Your task to perform on an android device: check google app version Image 0: 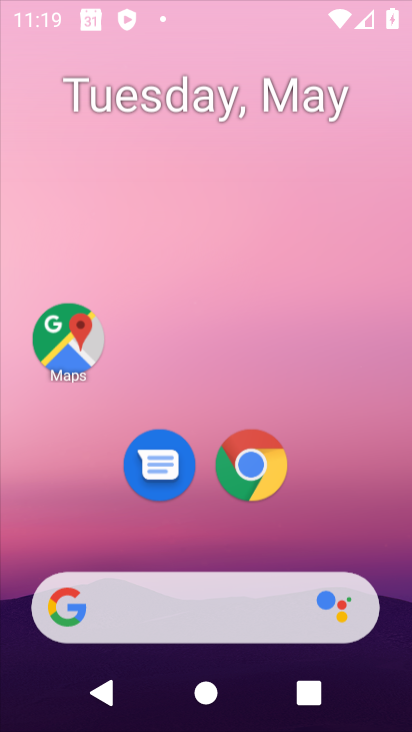
Step 0: click (256, 452)
Your task to perform on an android device: check google app version Image 1: 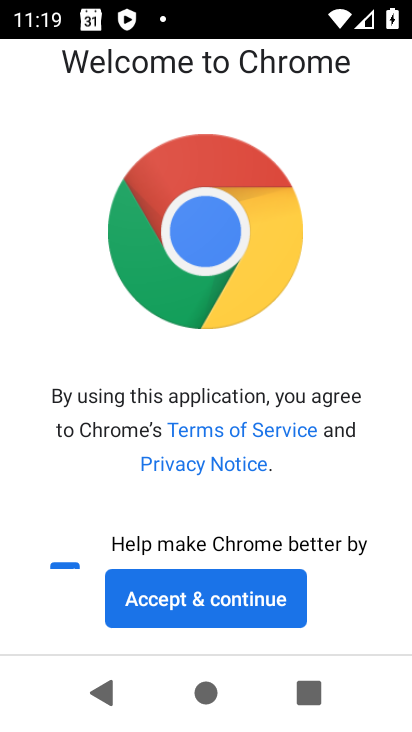
Step 1: click (212, 604)
Your task to perform on an android device: check google app version Image 2: 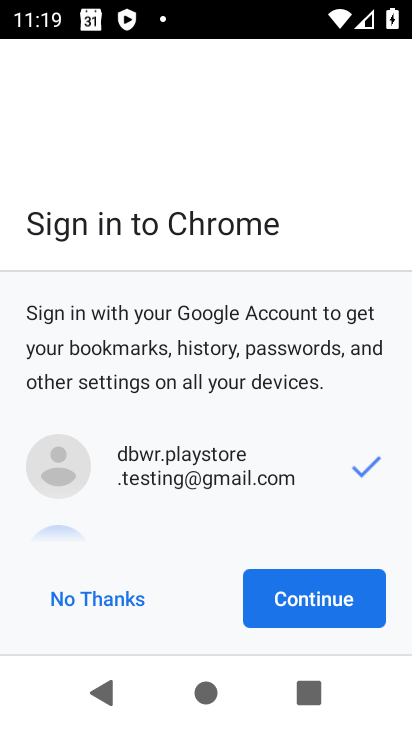
Step 2: click (339, 599)
Your task to perform on an android device: check google app version Image 3: 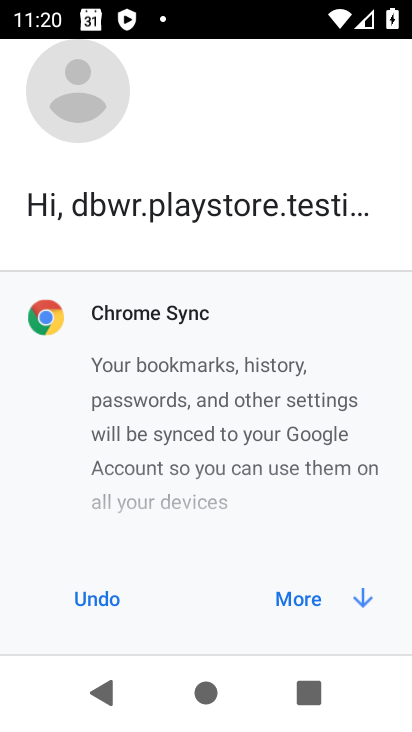
Step 3: press back button
Your task to perform on an android device: check google app version Image 4: 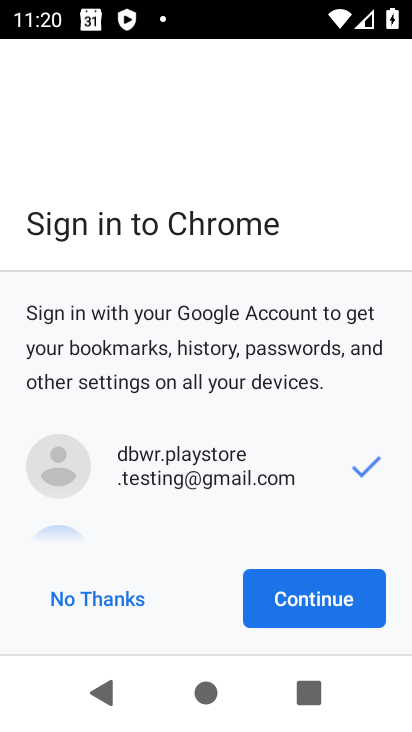
Step 4: press back button
Your task to perform on an android device: check google app version Image 5: 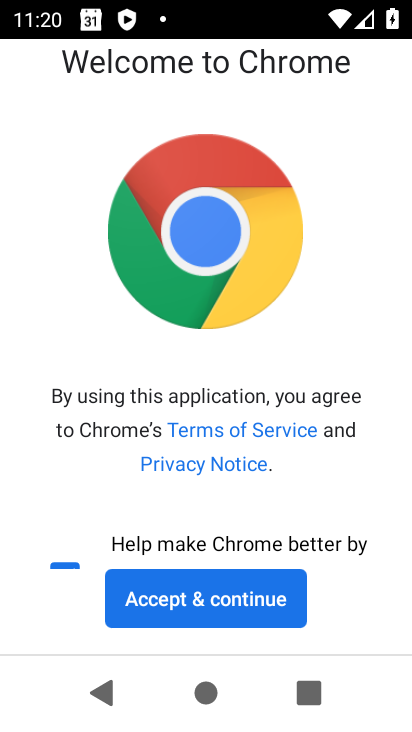
Step 5: press back button
Your task to perform on an android device: check google app version Image 6: 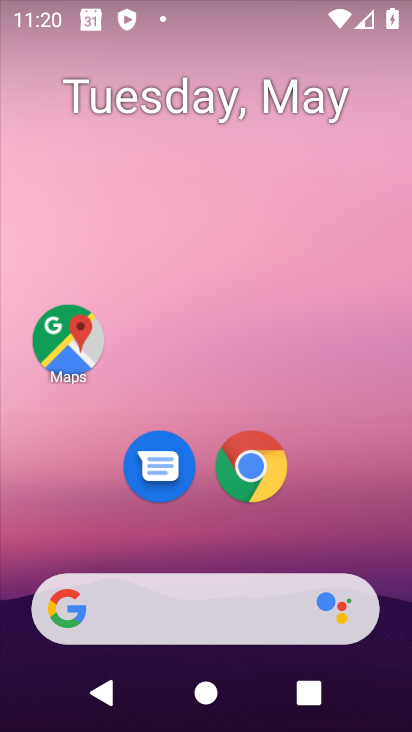
Step 6: drag from (219, 590) to (345, 7)
Your task to perform on an android device: check google app version Image 7: 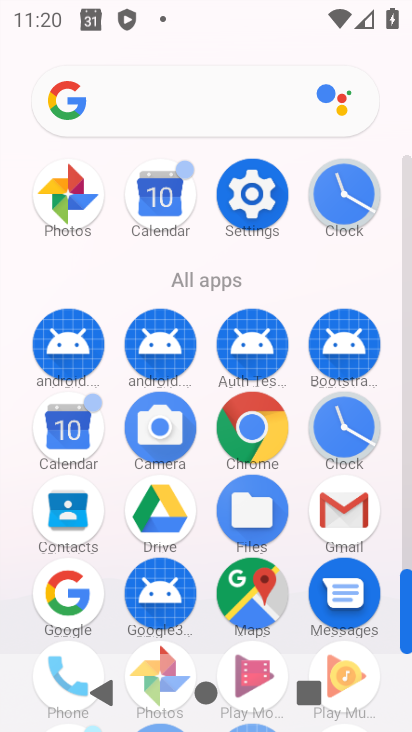
Step 7: click (63, 592)
Your task to perform on an android device: check google app version Image 8: 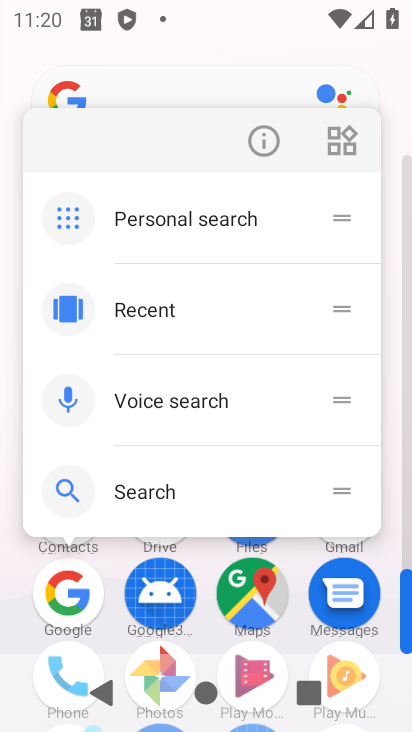
Step 8: click (261, 145)
Your task to perform on an android device: check google app version Image 9: 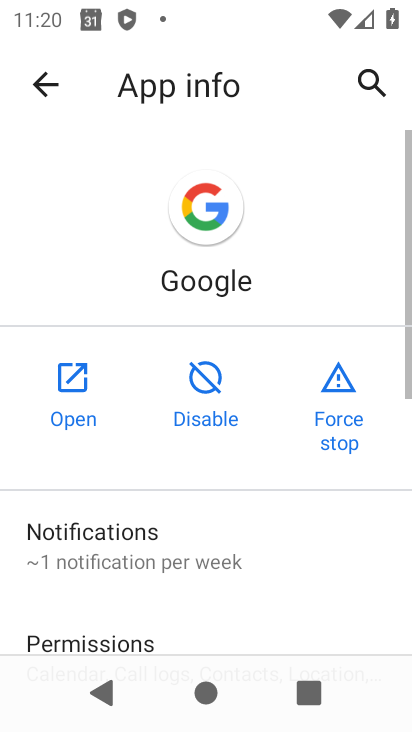
Step 9: drag from (153, 634) to (332, 68)
Your task to perform on an android device: check google app version Image 10: 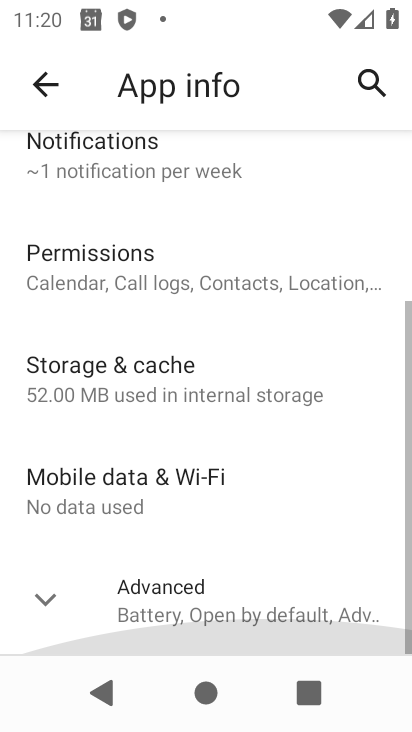
Step 10: drag from (221, 608) to (321, 108)
Your task to perform on an android device: check google app version Image 11: 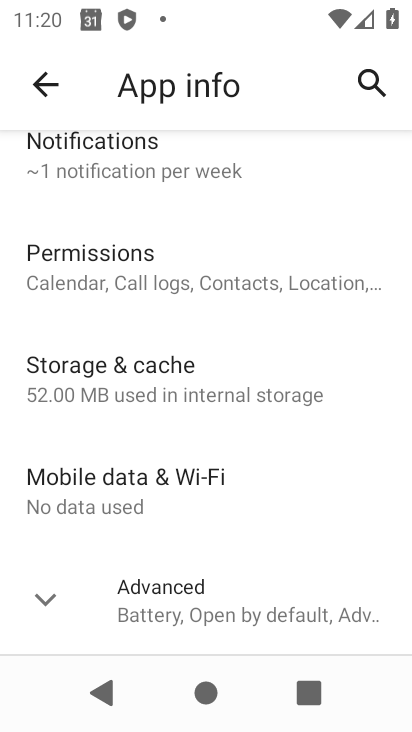
Step 11: drag from (179, 583) to (308, 43)
Your task to perform on an android device: check google app version Image 12: 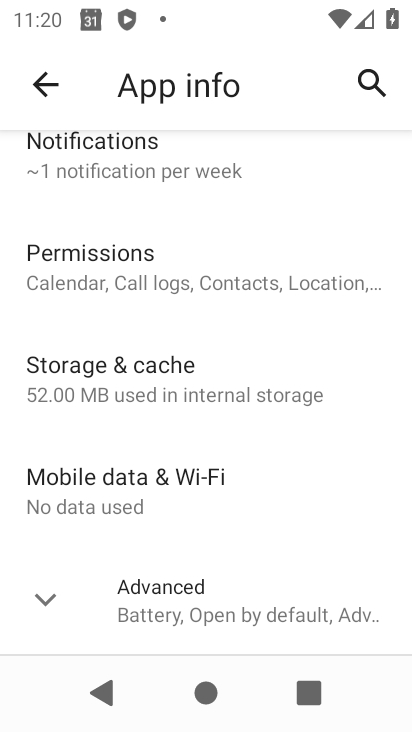
Step 12: click (140, 611)
Your task to perform on an android device: check google app version Image 13: 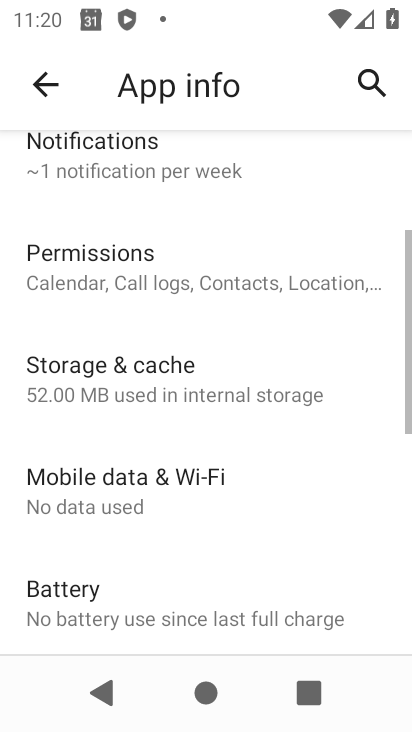
Step 13: task complete